Your task to perform on an android device: turn on the 24-hour format for clock Image 0: 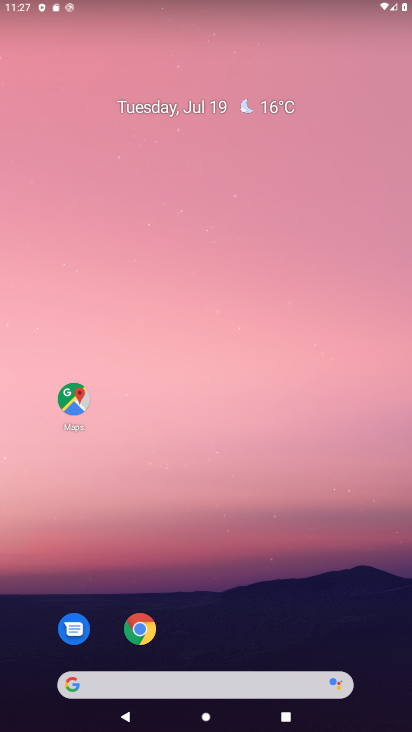
Step 0: drag from (395, 711) to (390, 169)
Your task to perform on an android device: turn on the 24-hour format for clock Image 1: 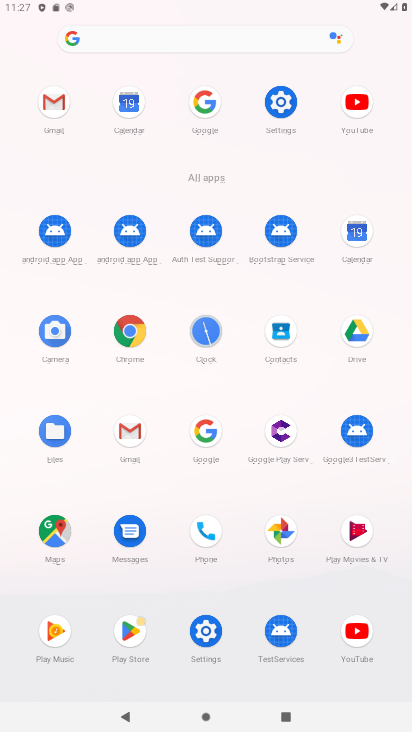
Step 1: click (206, 333)
Your task to perform on an android device: turn on the 24-hour format for clock Image 2: 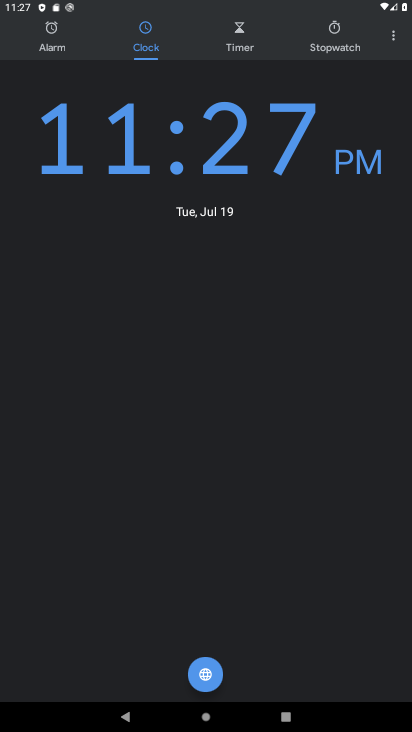
Step 2: click (393, 32)
Your task to perform on an android device: turn on the 24-hour format for clock Image 3: 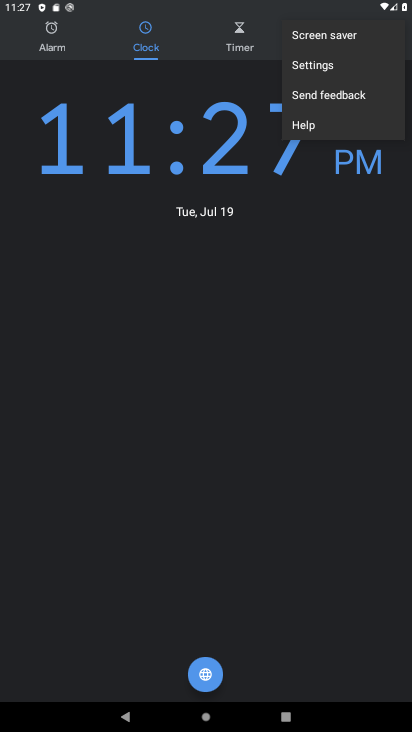
Step 3: click (311, 69)
Your task to perform on an android device: turn on the 24-hour format for clock Image 4: 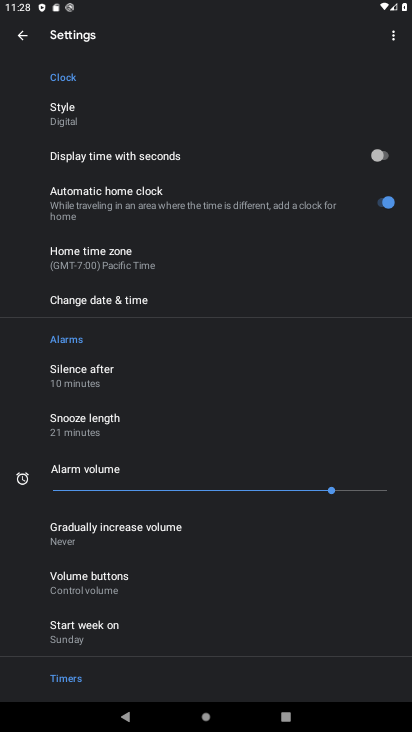
Step 4: click (105, 301)
Your task to perform on an android device: turn on the 24-hour format for clock Image 5: 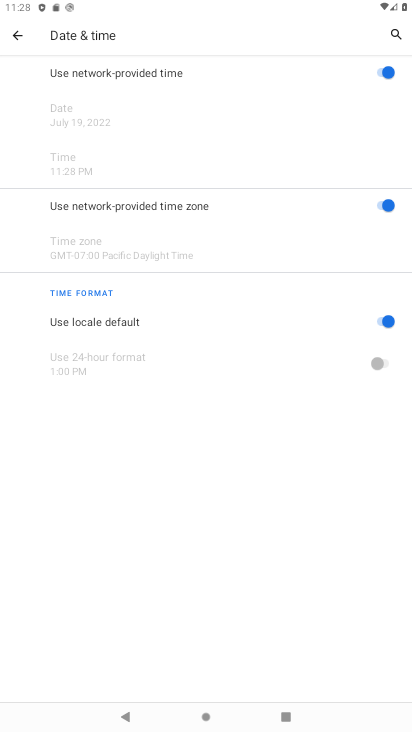
Step 5: click (383, 320)
Your task to perform on an android device: turn on the 24-hour format for clock Image 6: 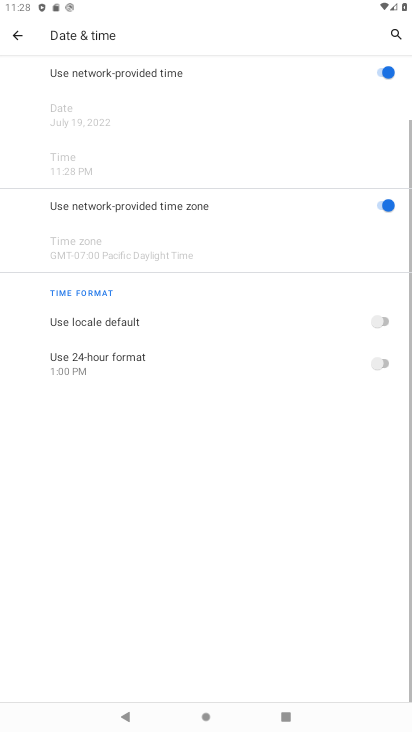
Step 6: click (382, 358)
Your task to perform on an android device: turn on the 24-hour format for clock Image 7: 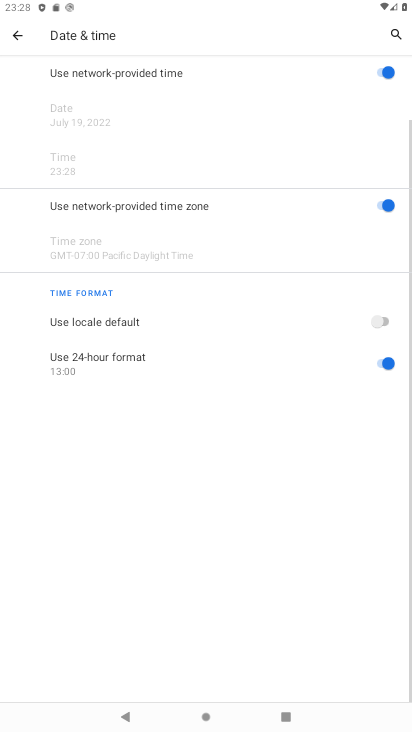
Step 7: task complete